Your task to perform on an android device: Open Google Chrome Image 0: 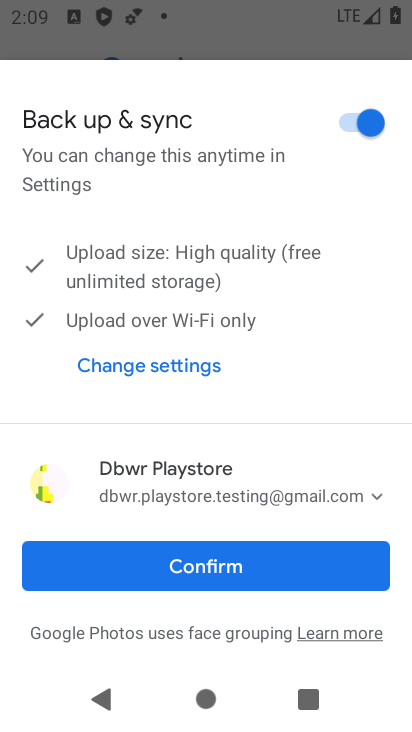
Step 0: press home button
Your task to perform on an android device: Open Google Chrome Image 1: 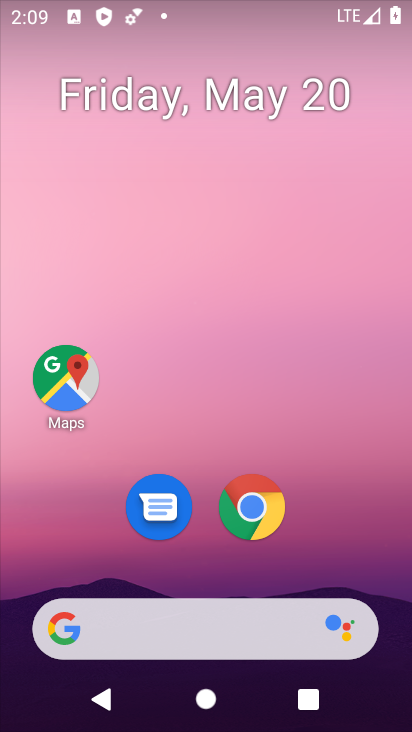
Step 1: click (273, 494)
Your task to perform on an android device: Open Google Chrome Image 2: 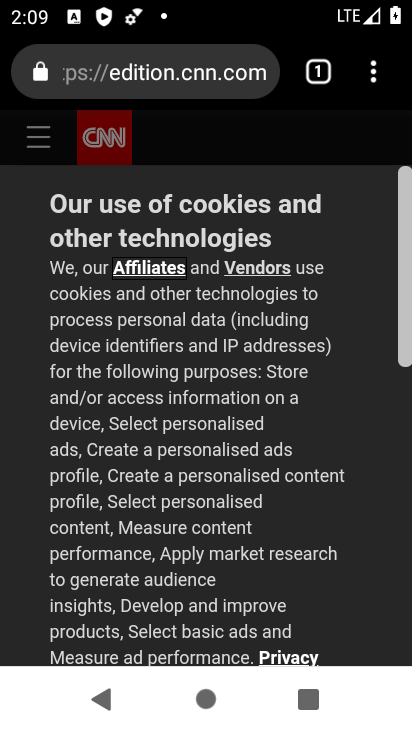
Step 2: click (273, 494)
Your task to perform on an android device: Open Google Chrome Image 3: 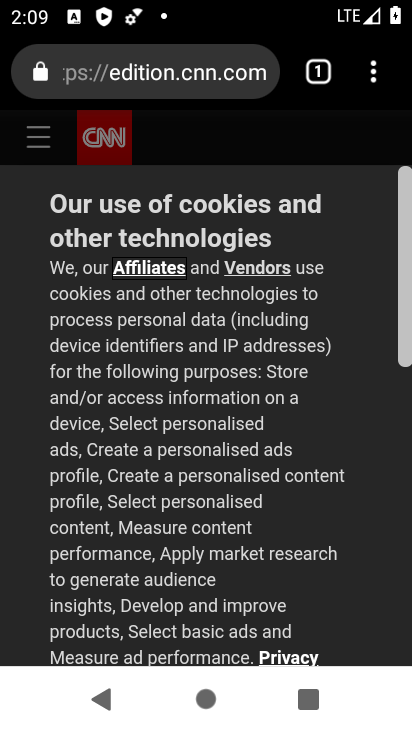
Step 3: click (273, 494)
Your task to perform on an android device: Open Google Chrome Image 4: 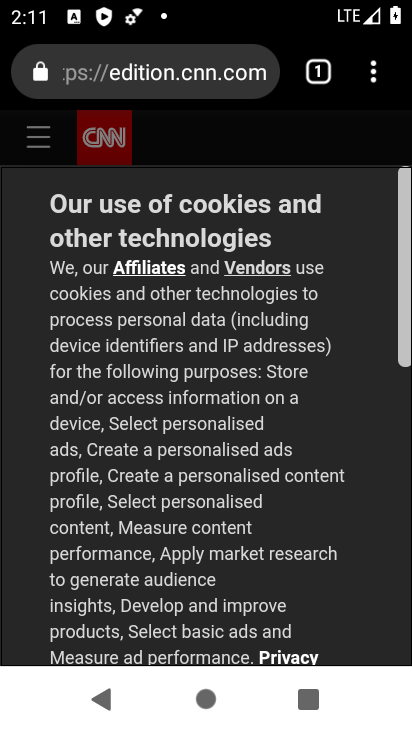
Step 4: task complete